Your task to perform on an android device: turn on the 24-hour format for clock Image 0: 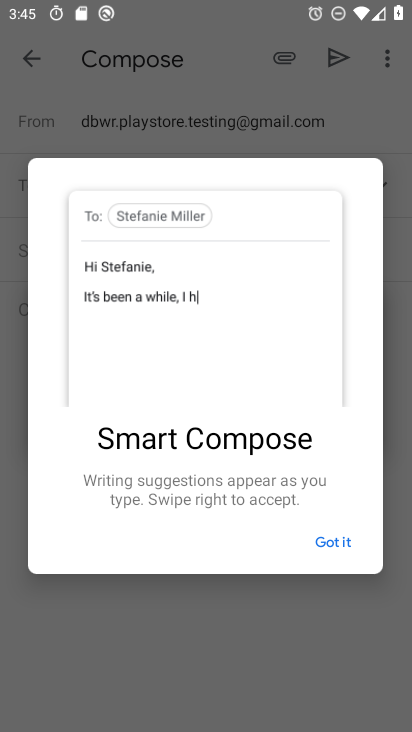
Step 0: press home button
Your task to perform on an android device: turn on the 24-hour format for clock Image 1: 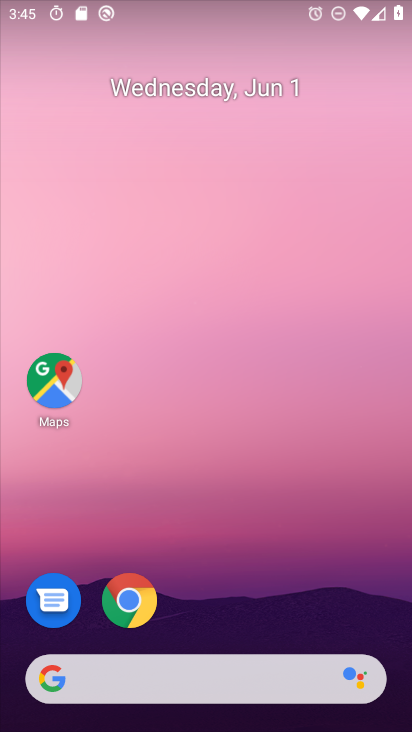
Step 1: drag from (240, 622) to (239, 228)
Your task to perform on an android device: turn on the 24-hour format for clock Image 2: 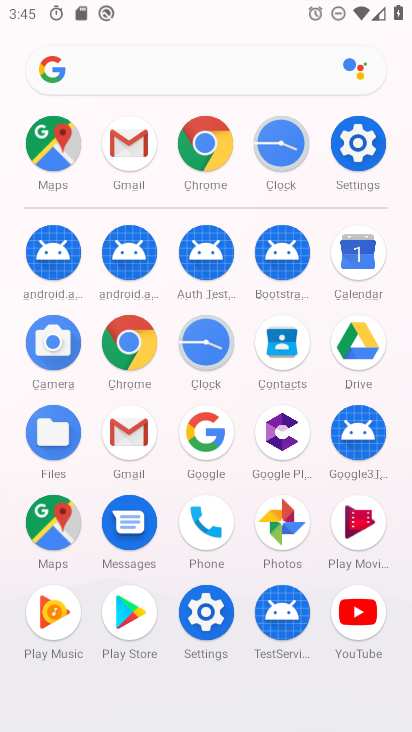
Step 2: click (204, 346)
Your task to perform on an android device: turn on the 24-hour format for clock Image 3: 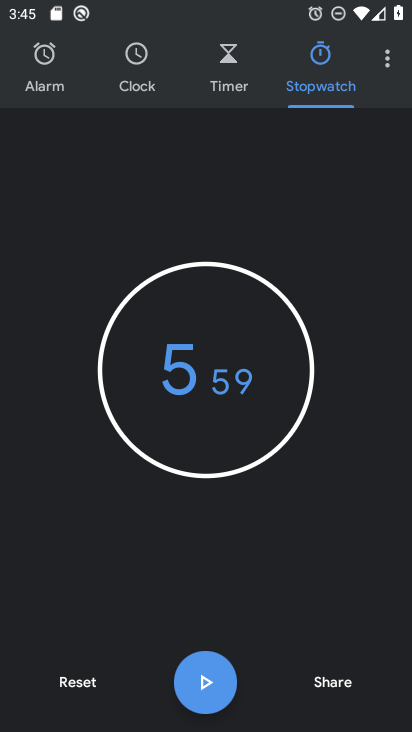
Step 3: click (387, 63)
Your task to perform on an android device: turn on the 24-hour format for clock Image 4: 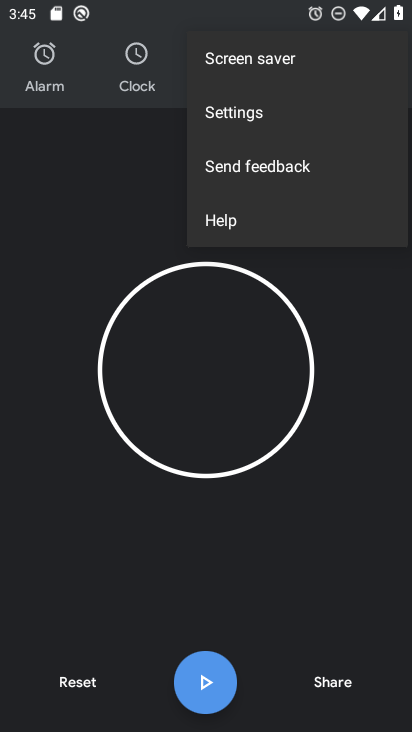
Step 4: click (232, 107)
Your task to perform on an android device: turn on the 24-hour format for clock Image 5: 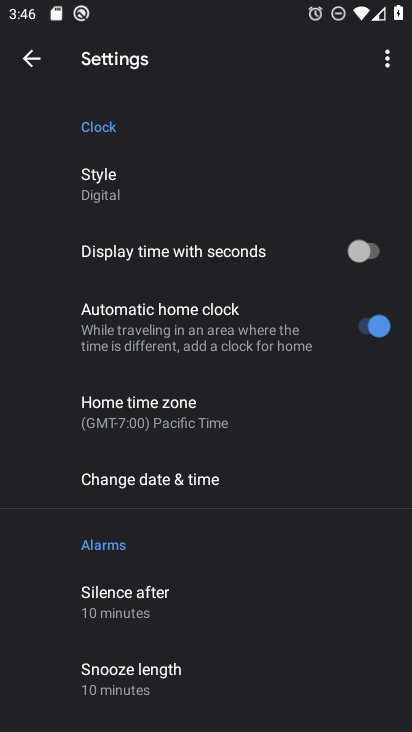
Step 5: click (158, 484)
Your task to perform on an android device: turn on the 24-hour format for clock Image 6: 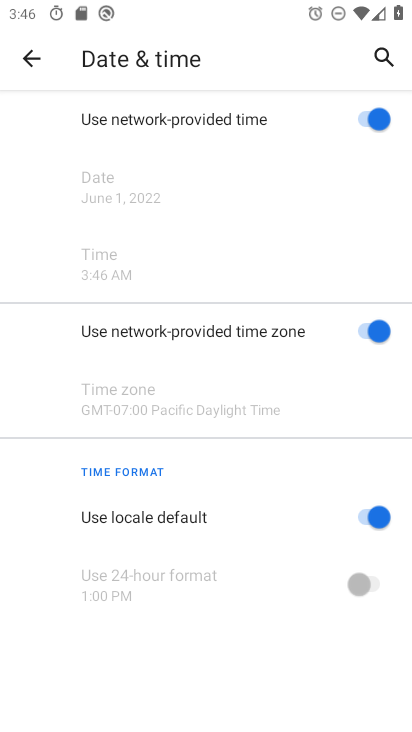
Step 6: click (364, 521)
Your task to perform on an android device: turn on the 24-hour format for clock Image 7: 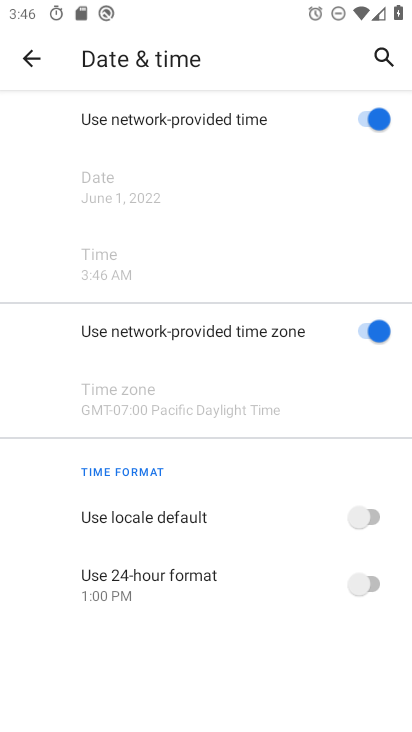
Step 7: click (375, 588)
Your task to perform on an android device: turn on the 24-hour format for clock Image 8: 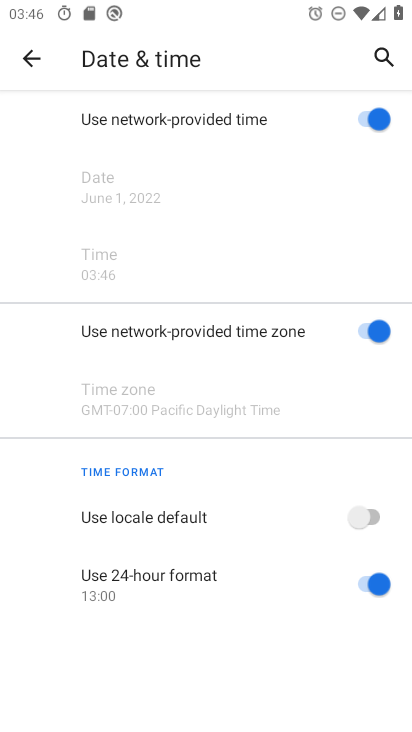
Step 8: task complete